Your task to perform on an android device: turn off notifications in google photos Image 0: 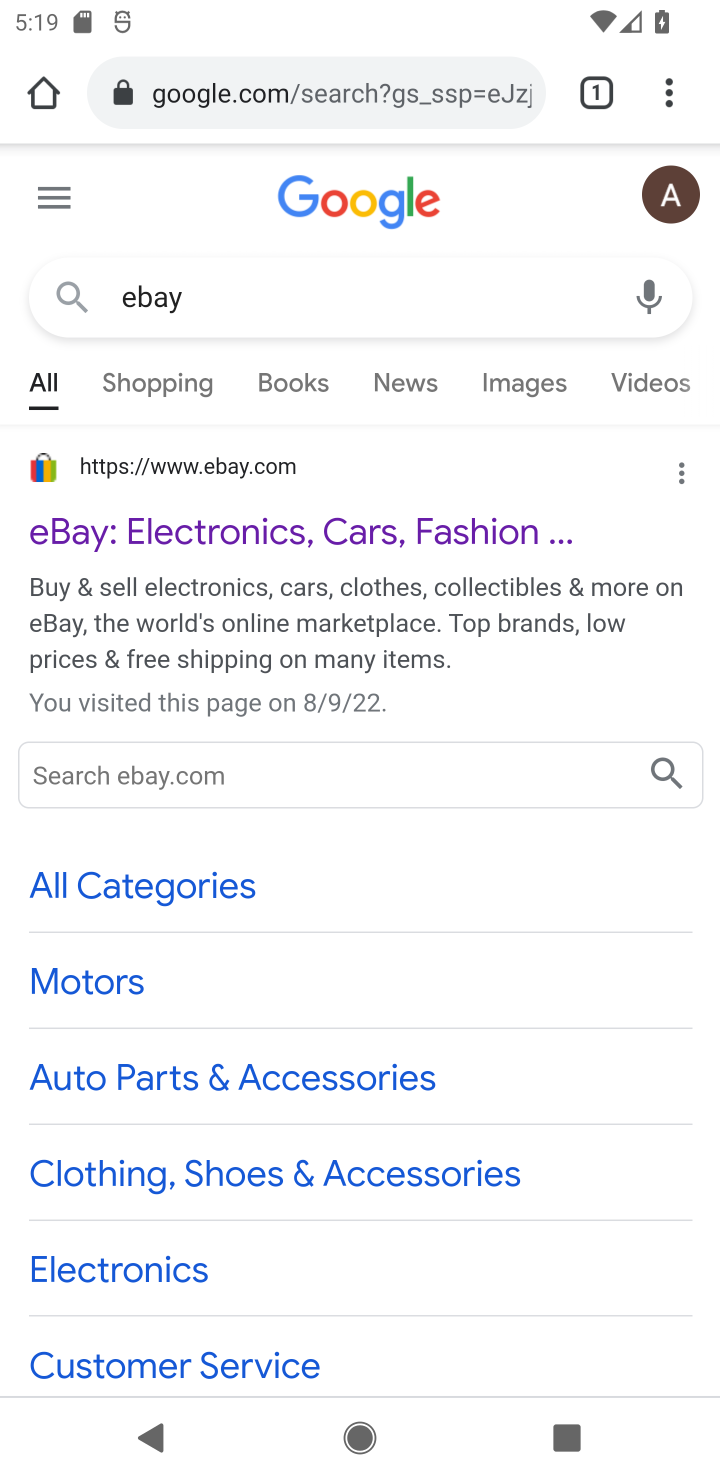
Step 0: press home button
Your task to perform on an android device: turn off notifications in google photos Image 1: 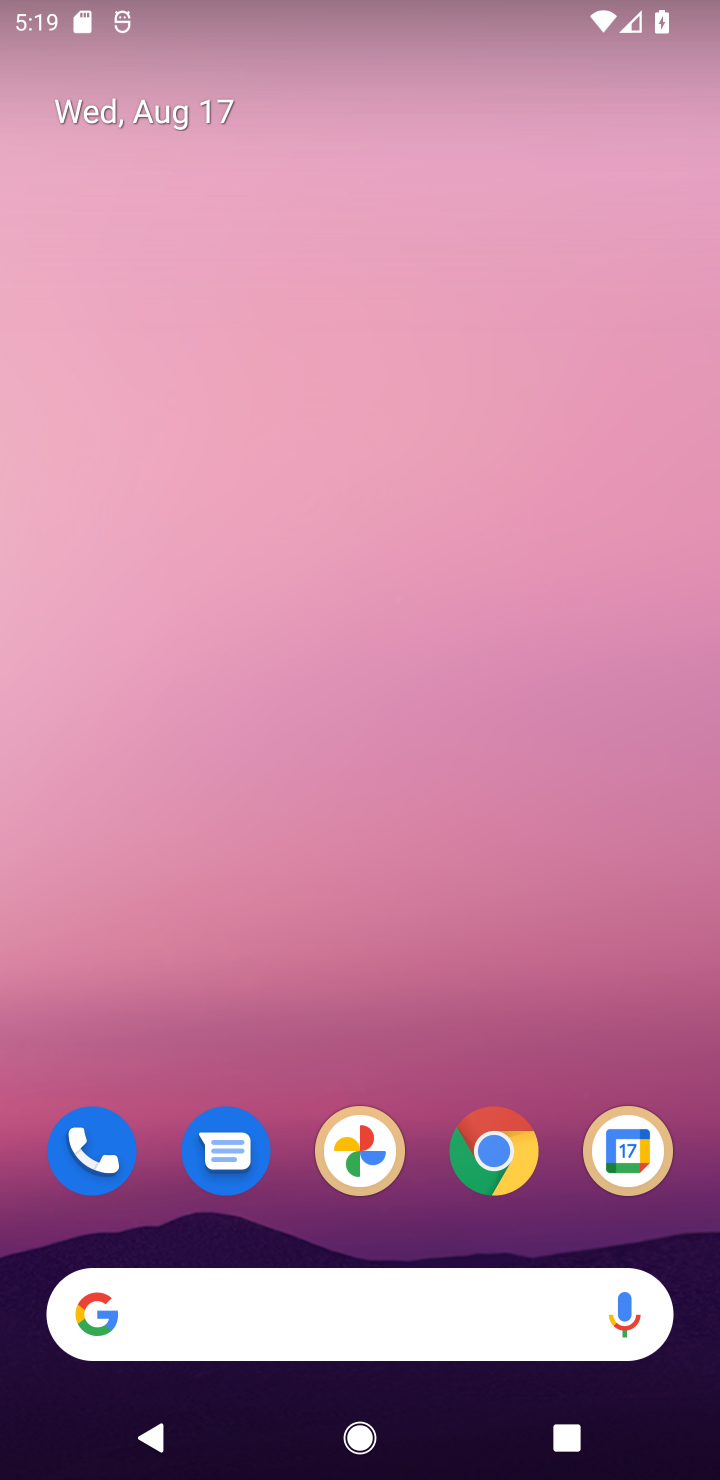
Step 1: click (441, 1245)
Your task to perform on an android device: turn off notifications in google photos Image 2: 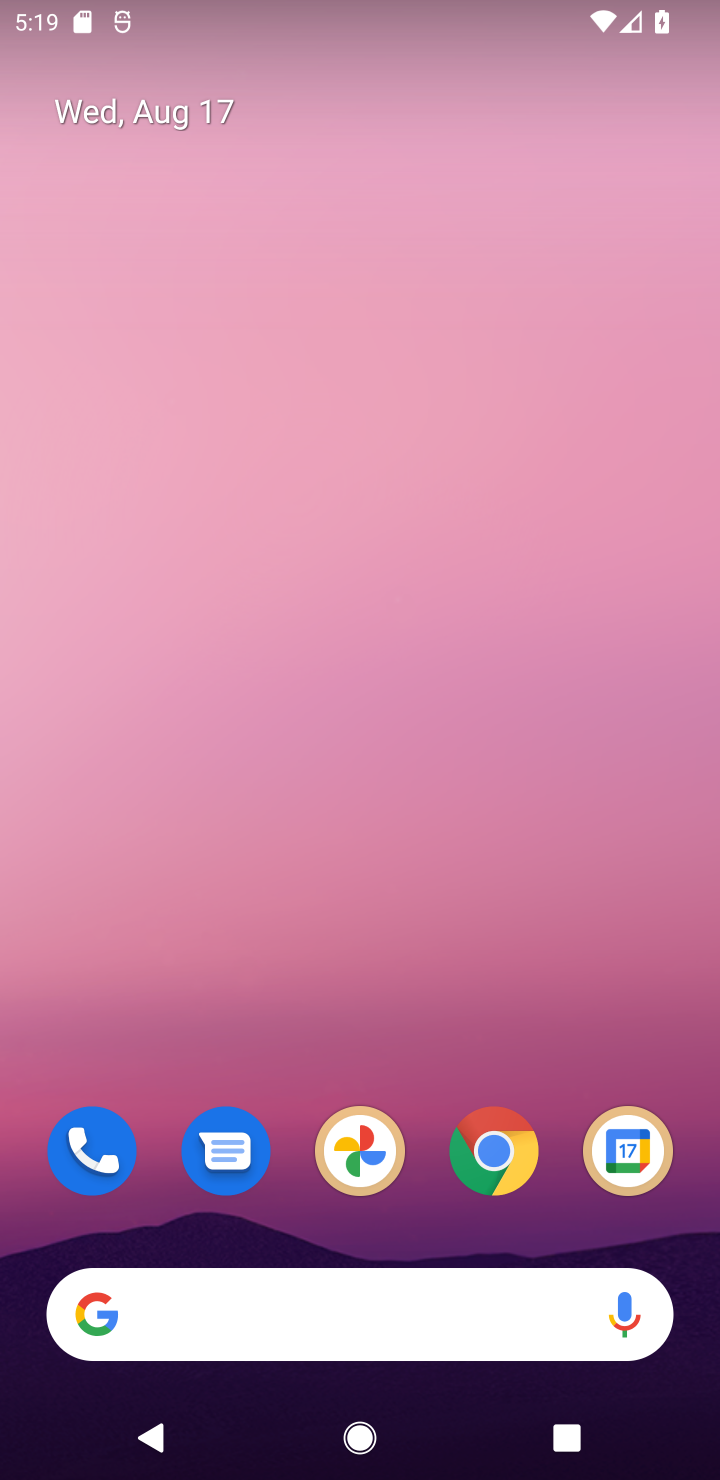
Step 2: drag from (441, 1245) to (418, 389)
Your task to perform on an android device: turn off notifications in google photos Image 3: 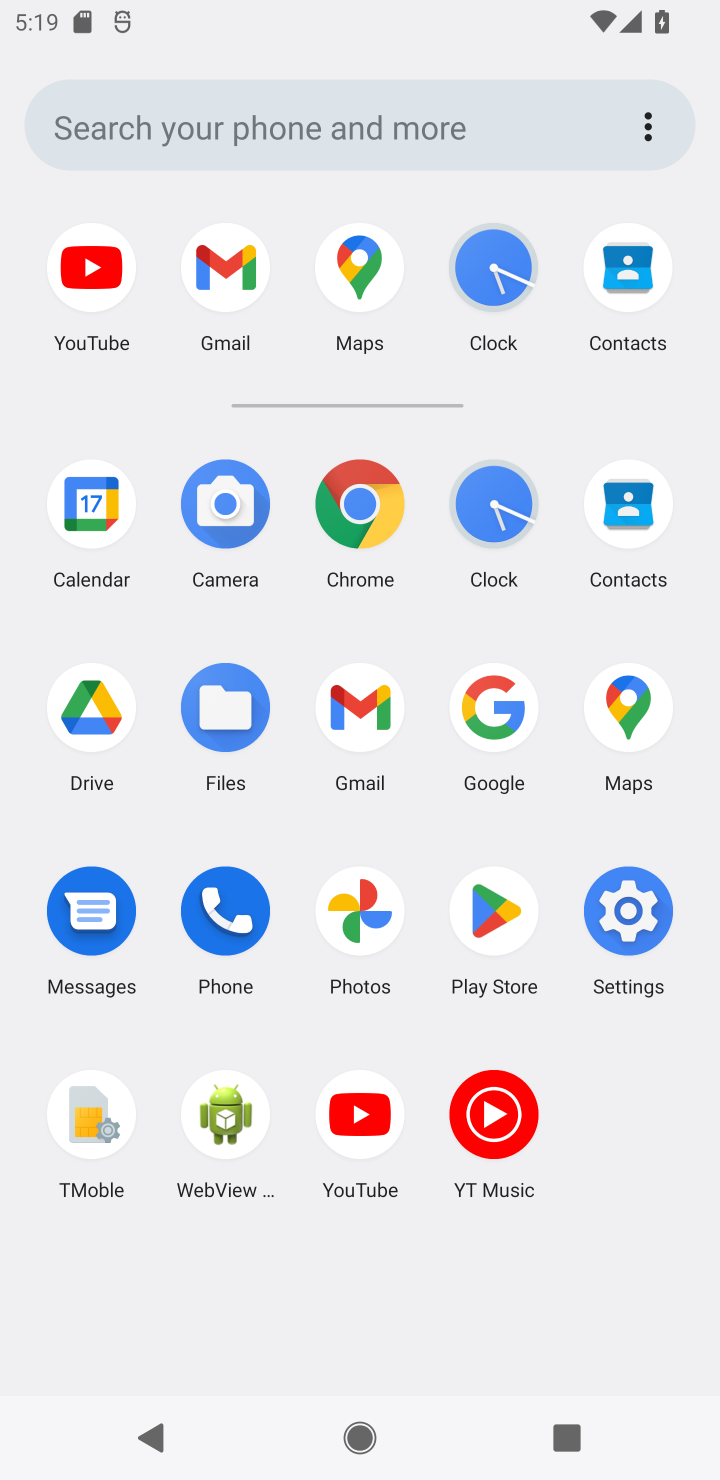
Step 3: click (349, 921)
Your task to perform on an android device: turn off notifications in google photos Image 4: 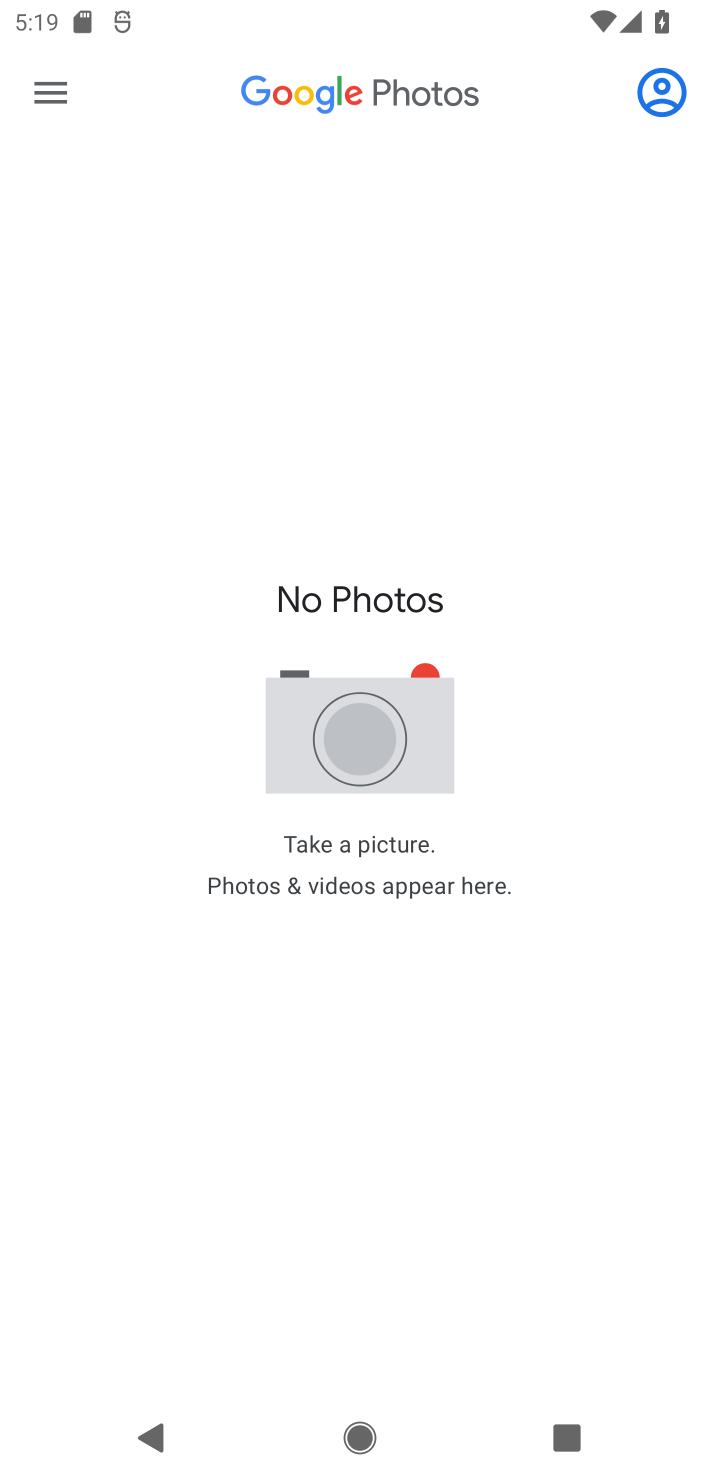
Step 4: click (55, 111)
Your task to perform on an android device: turn off notifications in google photos Image 5: 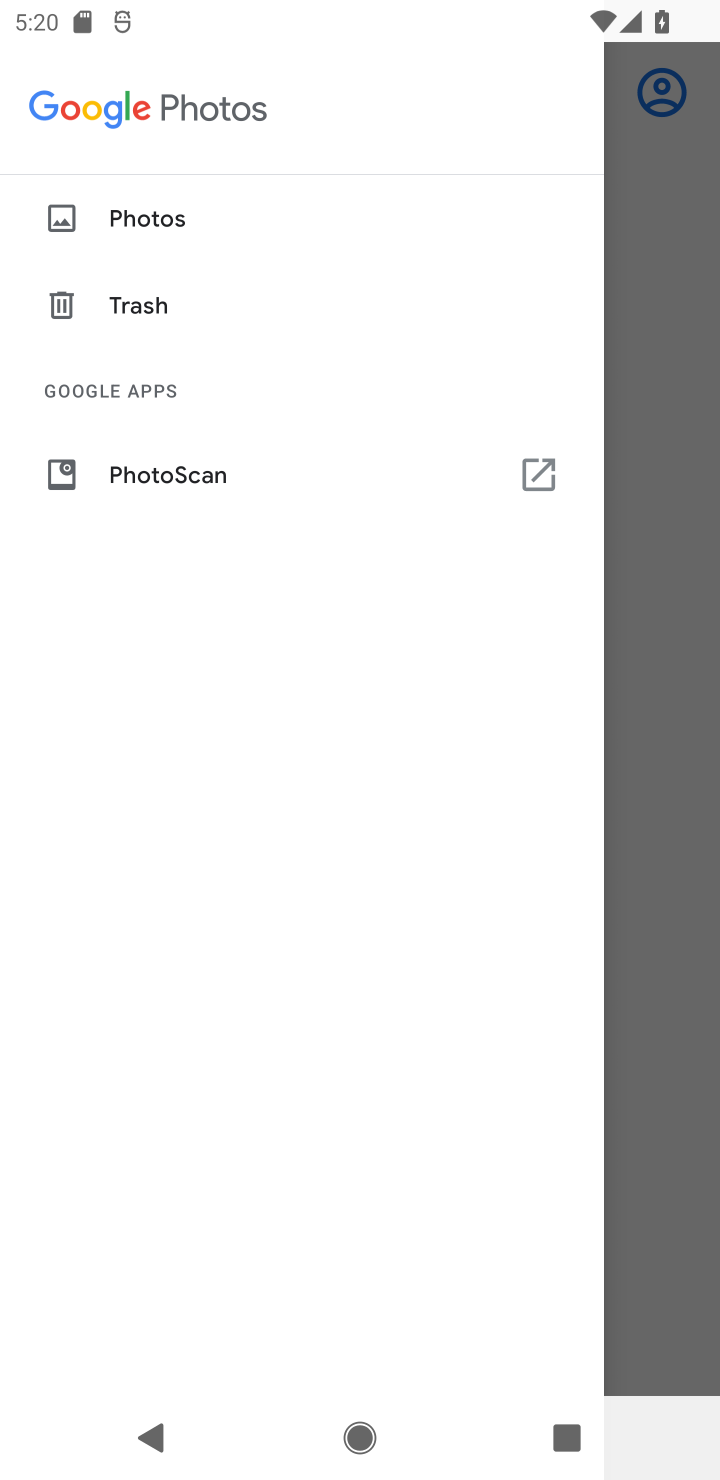
Step 5: click (113, 196)
Your task to perform on an android device: turn off notifications in google photos Image 6: 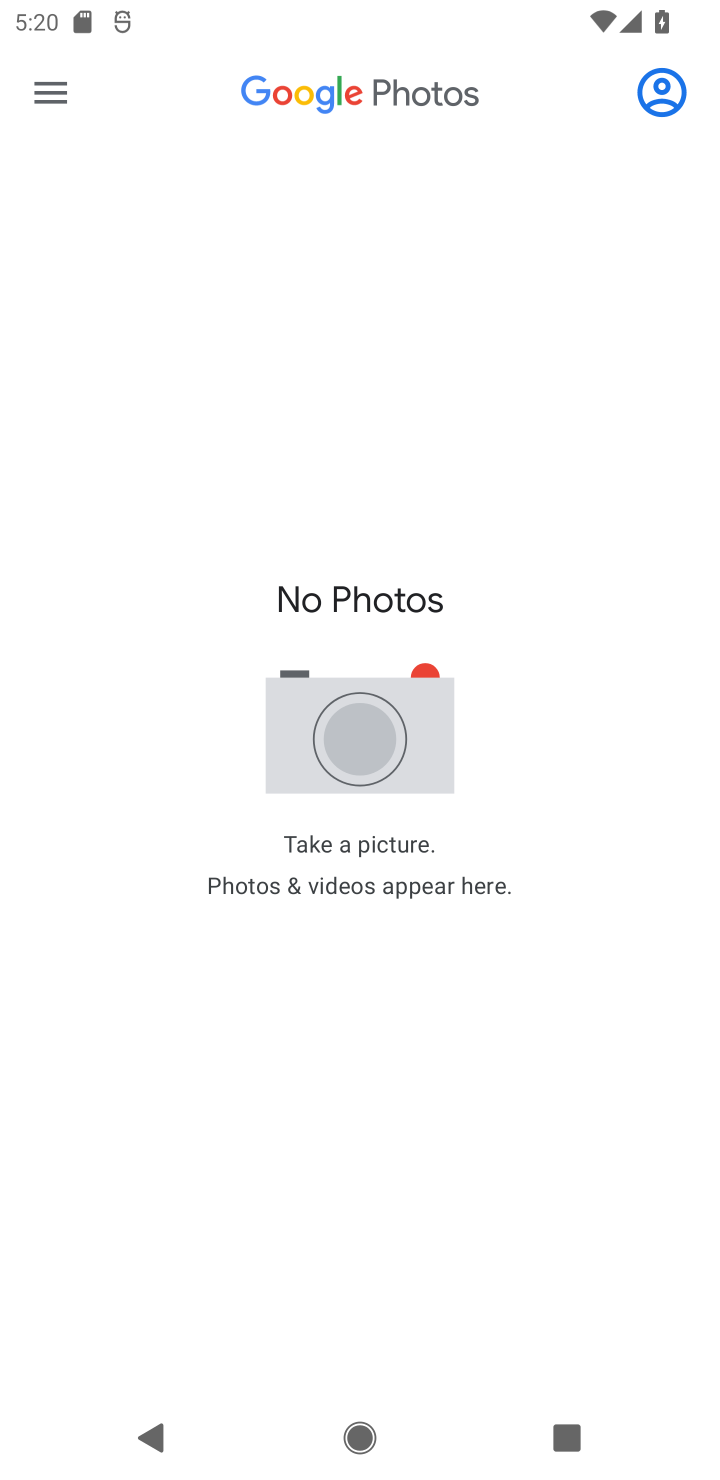
Step 6: task complete